Your task to perform on an android device: see sites visited before in the chrome app Image 0: 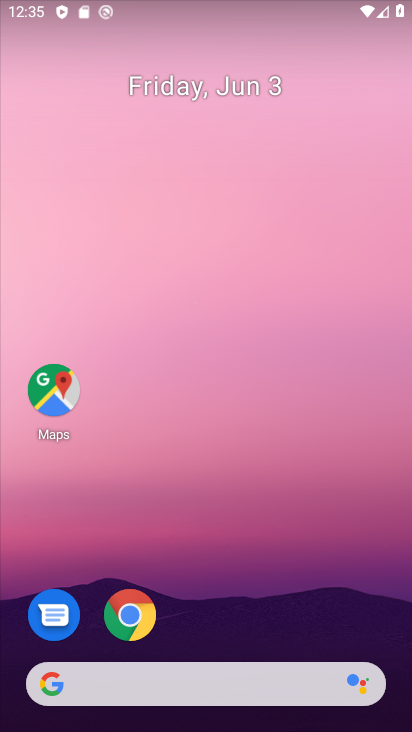
Step 0: click (131, 616)
Your task to perform on an android device: see sites visited before in the chrome app Image 1: 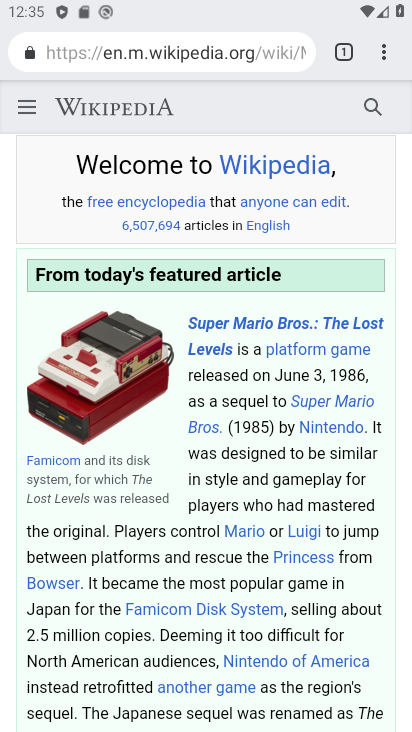
Step 1: click (383, 45)
Your task to perform on an android device: see sites visited before in the chrome app Image 2: 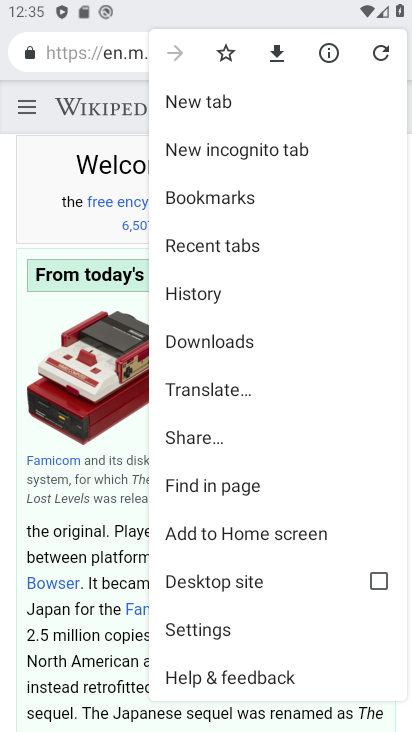
Step 2: click (270, 247)
Your task to perform on an android device: see sites visited before in the chrome app Image 3: 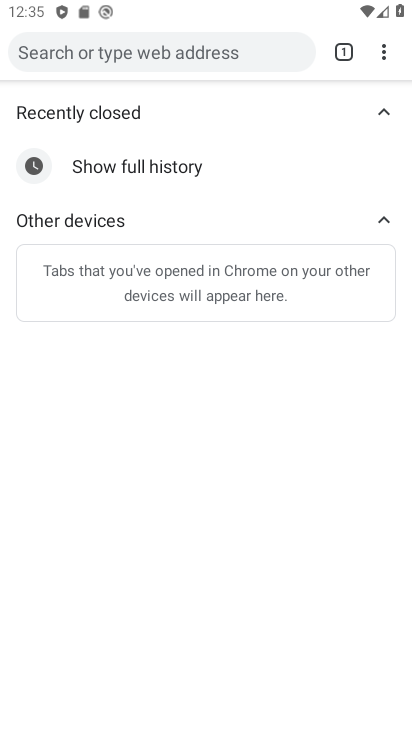
Step 3: task complete